Your task to perform on an android device: set an alarm Image 0: 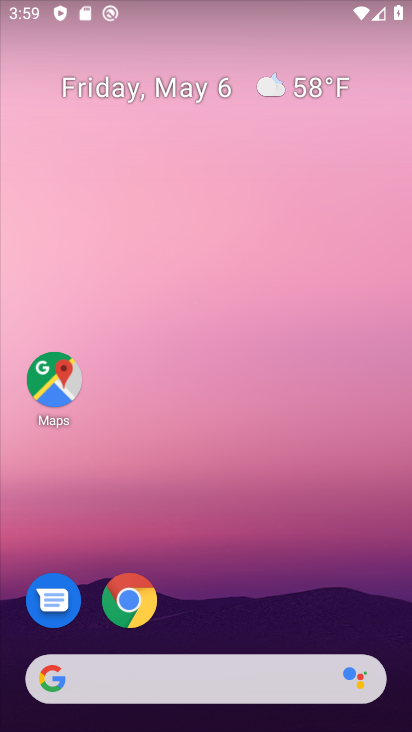
Step 0: drag from (252, 628) to (291, 100)
Your task to perform on an android device: set an alarm Image 1: 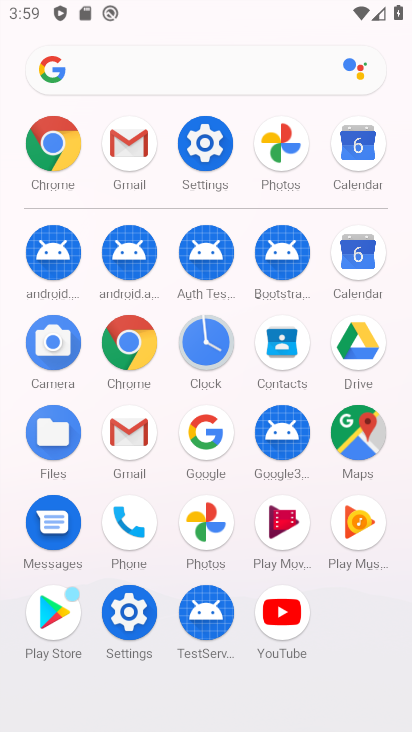
Step 1: click (213, 351)
Your task to perform on an android device: set an alarm Image 2: 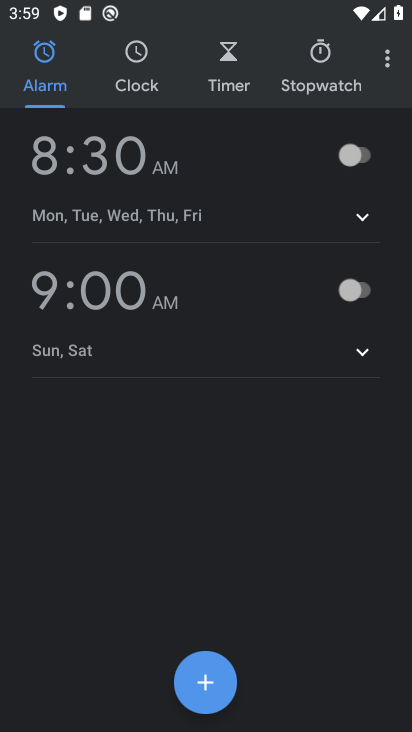
Step 2: click (144, 181)
Your task to perform on an android device: set an alarm Image 3: 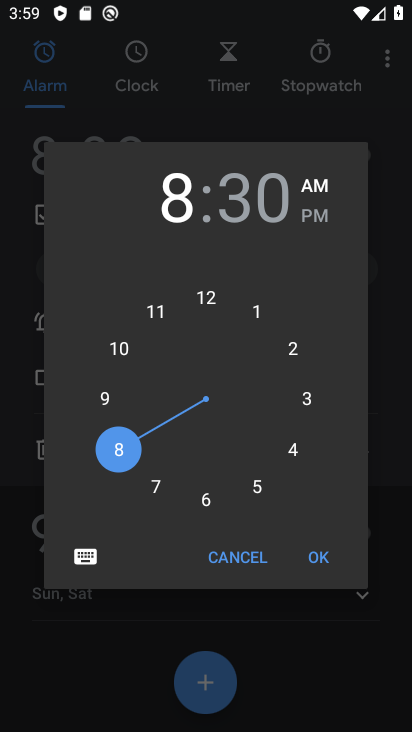
Step 3: click (168, 313)
Your task to perform on an android device: set an alarm Image 4: 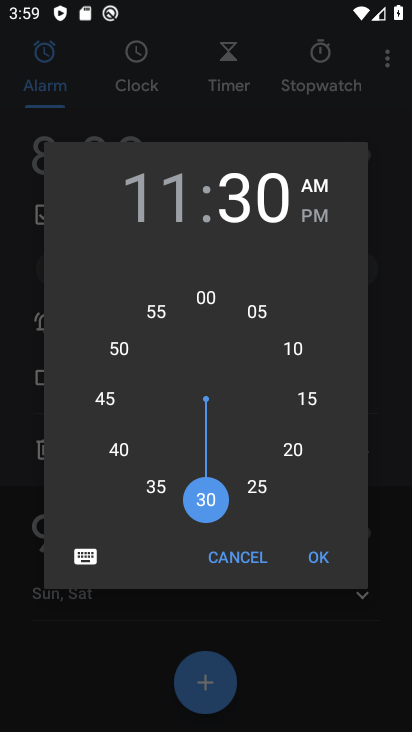
Step 4: click (300, 352)
Your task to perform on an android device: set an alarm Image 5: 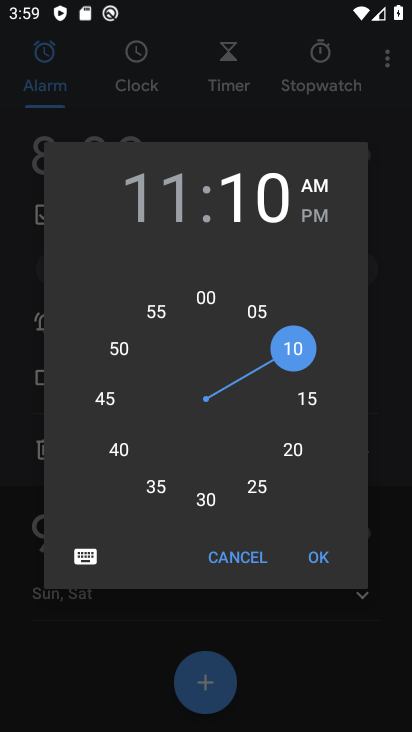
Step 5: click (320, 222)
Your task to perform on an android device: set an alarm Image 6: 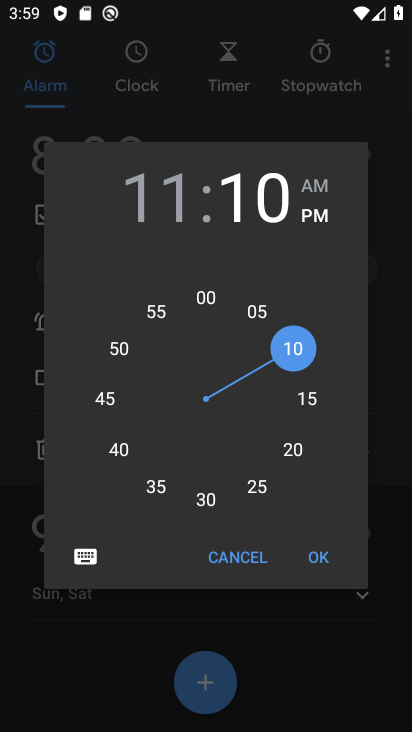
Step 6: click (332, 563)
Your task to perform on an android device: set an alarm Image 7: 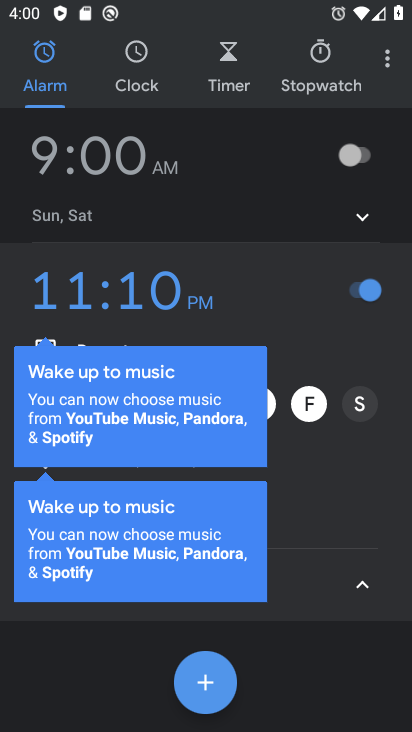
Step 7: task complete